Your task to perform on an android device: Search for the best rated lawnmower on Lowes.com Image 0: 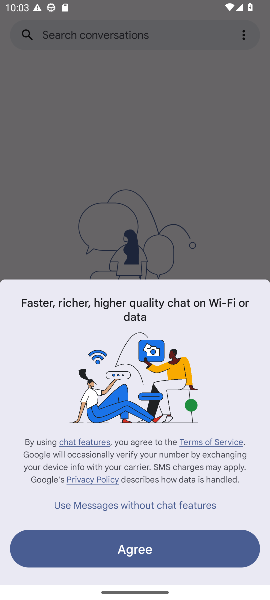
Step 0: press home button
Your task to perform on an android device: Search for the best rated lawnmower on Lowes.com Image 1: 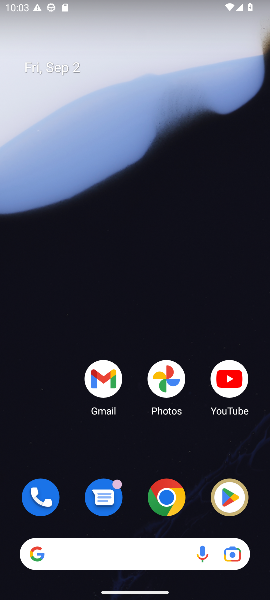
Step 1: click (175, 508)
Your task to perform on an android device: Search for the best rated lawnmower on Lowes.com Image 2: 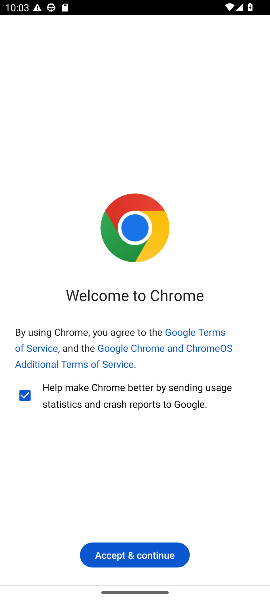
Step 2: click (153, 555)
Your task to perform on an android device: Search for the best rated lawnmower on Lowes.com Image 3: 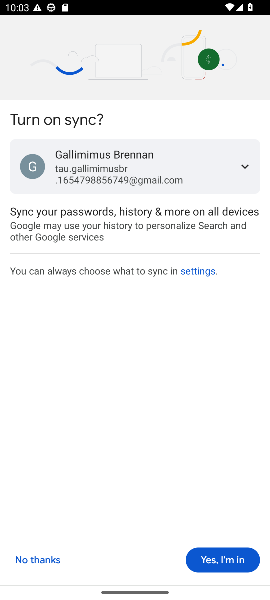
Step 3: click (211, 556)
Your task to perform on an android device: Search for the best rated lawnmower on Lowes.com Image 4: 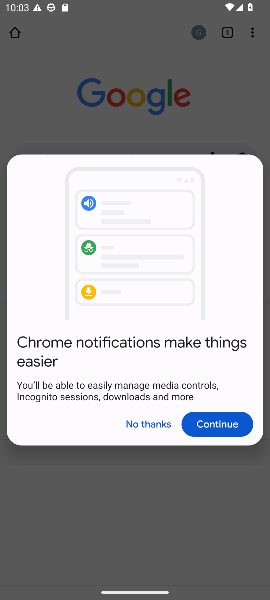
Step 4: click (211, 418)
Your task to perform on an android device: Search for the best rated lawnmower on Lowes.com Image 5: 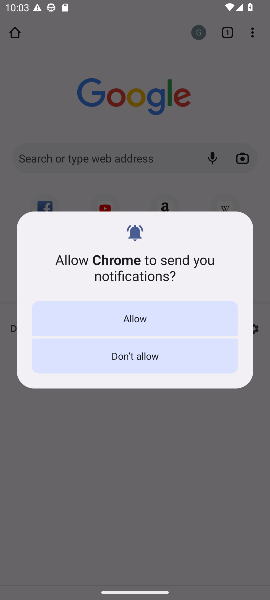
Step 5: click (165, 308)
Your task to perform on an android device: Search for the best rated lawnmower on Lowes.com Image 6: 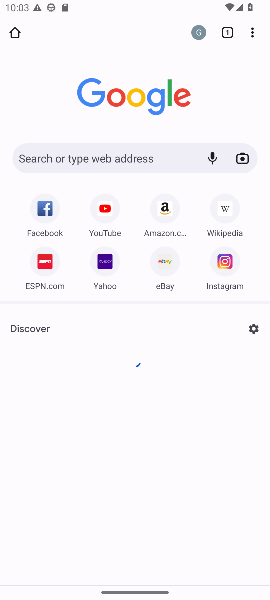
Step 6: click (92, 158)
Your task to perform on an android device: Search for the best rated lawnmower on Lowes.com Image 7: 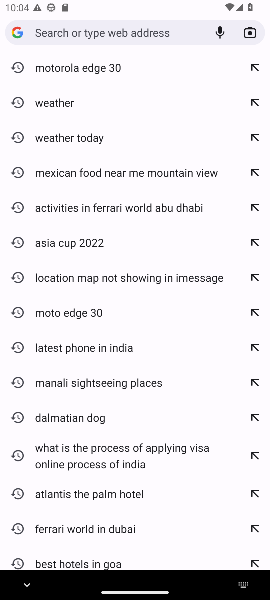
Step 7: type "lowes.com"
Your task to perform on an android device: Search for the best rated lawnmower on Lowes.com Image 8: 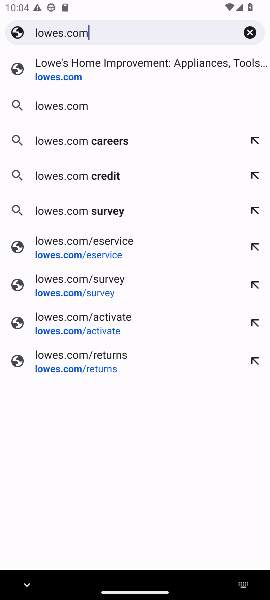
Step 8: click (81, 66)
Your task to perform on an android device: Search for the best rated lawnmower on Lowes.com Image 9: 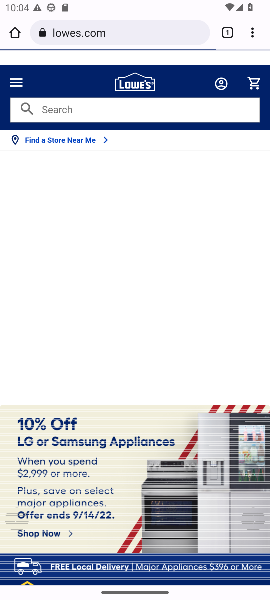
Step 9: click (161, 110)
Your task to perform on an android device: Search for the best rated lawnmower on Lowes.com Image 10: 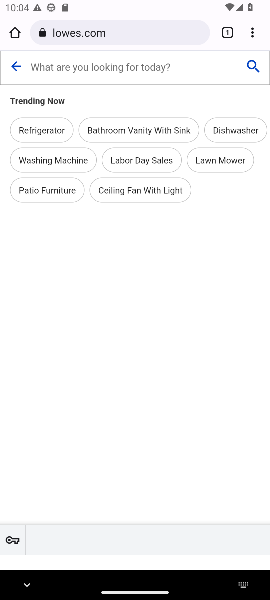
Step 10: click (110, 65)
Your task to perform on an android device: Search for the best rated lawnmower on Lowes.com Image 11: 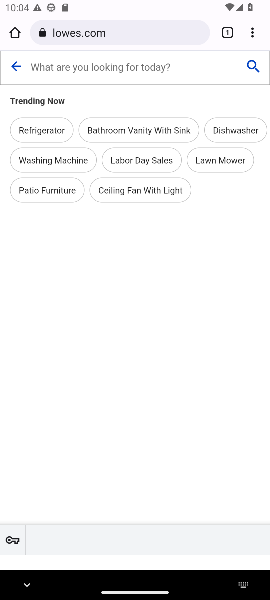
Step 11: type "best rated lawnmower"
Your task to perform on an android device: Search for the best rated lawnmower on Lowes.com Image 12: 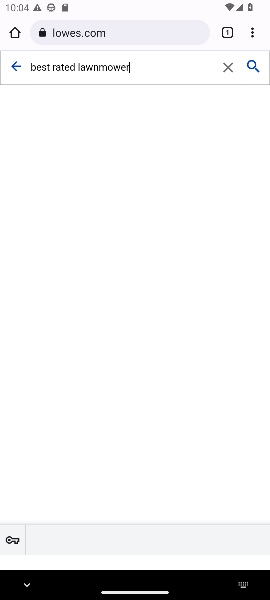
Step 12: press enter
Your task to perform on an android device: Search for the best rated lawnmower on Lowes.com Image 13: 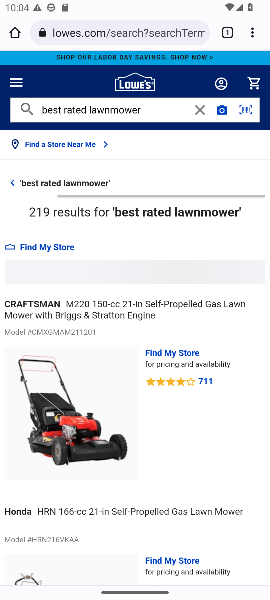
Step 13: task complete